Your task to perform on an android device: Check the weather Image 0: 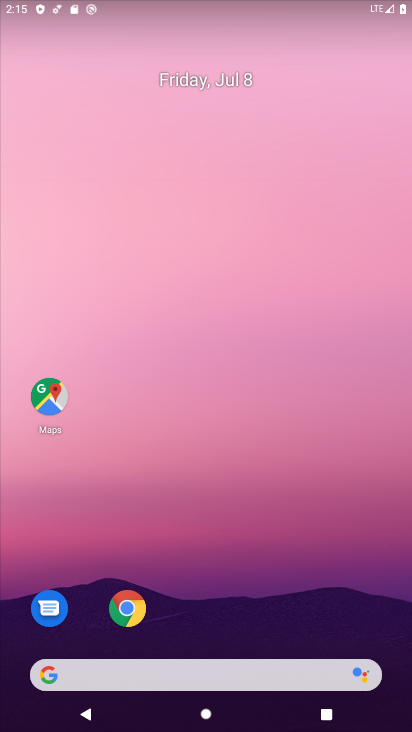
Step 0: drag from (213, 600) to (226, 214)
Your task to perform on an android device: Check the weather Image 1: 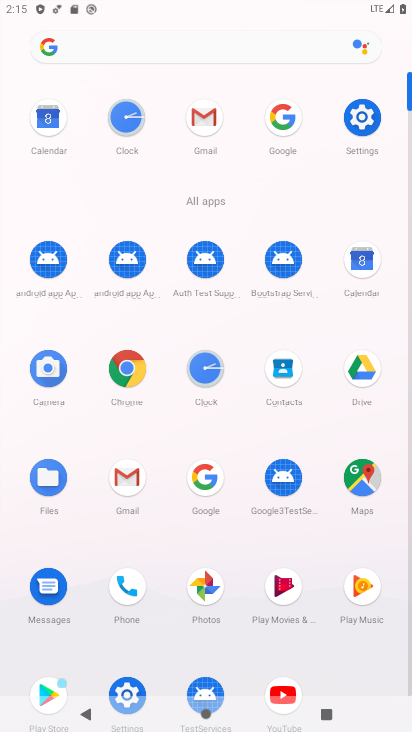
Step 1: click (199, 479)
Your task to perform on an android device: Check the weather Image 2: 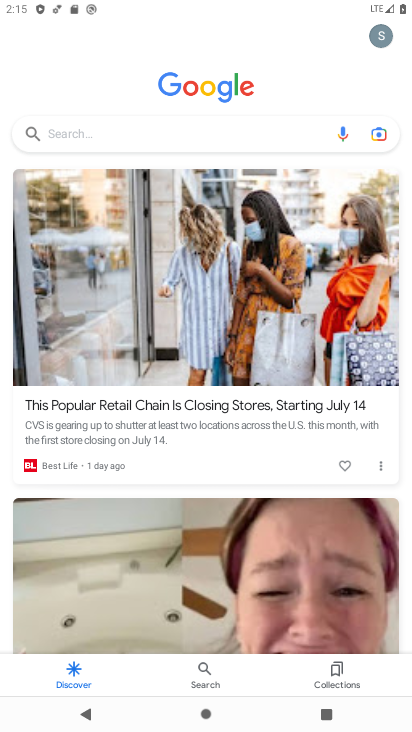
Step 2: click (171, 132)
Your task to perform on an android device: Check the weather Image 3: 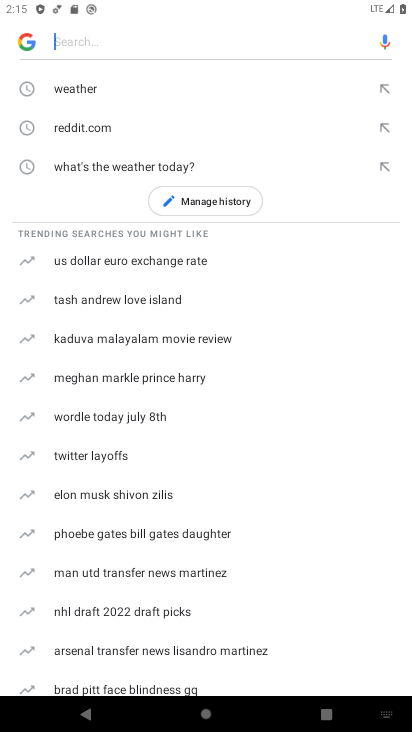
Step 3: type "check the weather"
Your task to perform on an android device: Check the weather Image 4: 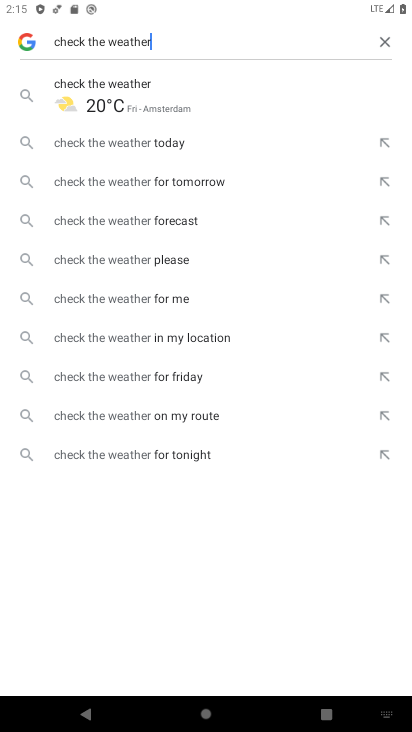
Step 4: click (108, 85)
Your task to perform on an android device: Check the weather Image 5: 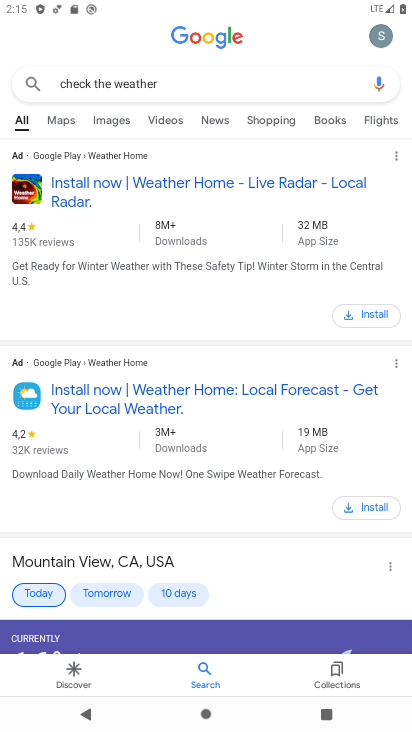
Step 5: task complete